Your task to perform on an android device: allow notifications from all sites in the chrome app Image 0: 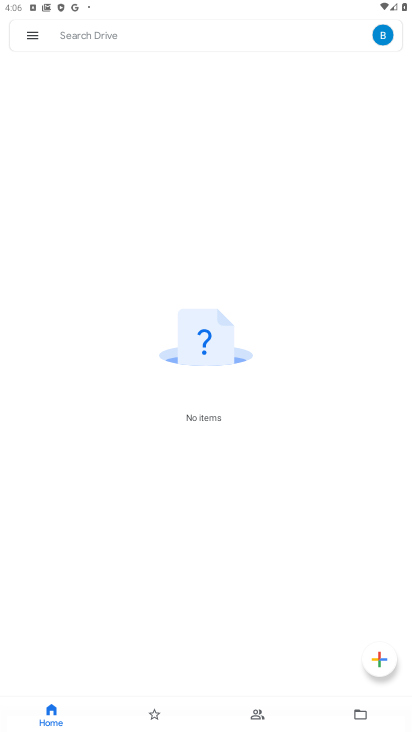
Step 0: press home button
Your task to perform on an android device: allow notifications from all sites in the chrome app Image 1: 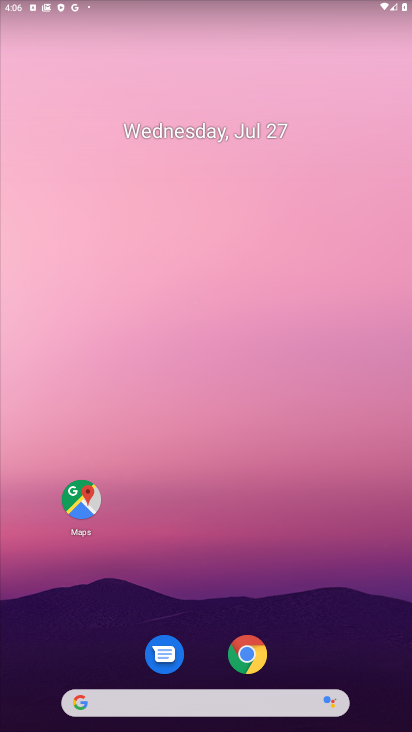
Step 1: click (244, 646)
Your task to perform on an android device: allow notifications from all sites in the chrome app Image 2: 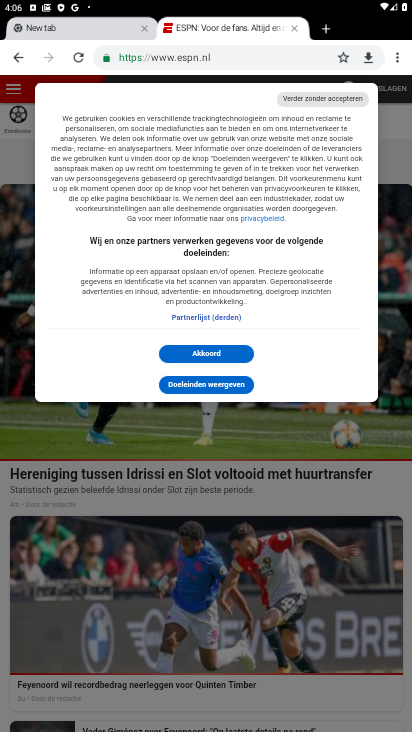
Step 2: click (398, 55)
Your task to perform on an android device: allow notifications from all sites in the chrome app Image 3: 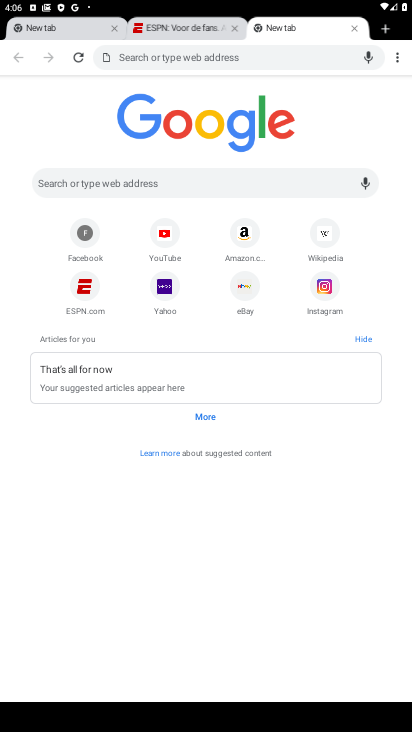
Step 3: click (395, 53)
Your task to perform on an android device: allow notifications from all sites in the chrome app Image 4: 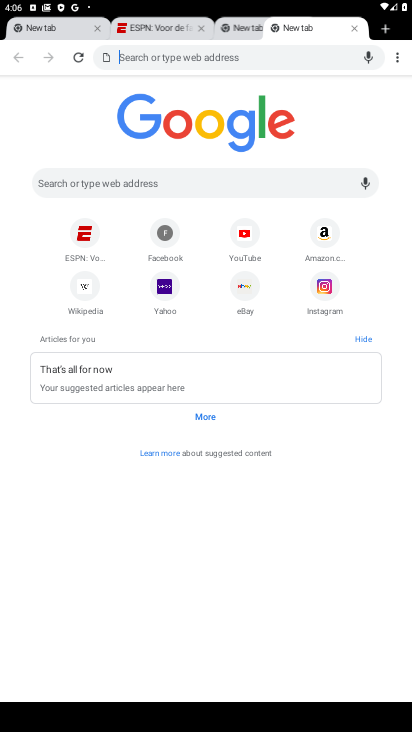
Step 4: click (390, 54)
Your task to perform on an android device: allow notifications from all sites in the chrome app Image 5: 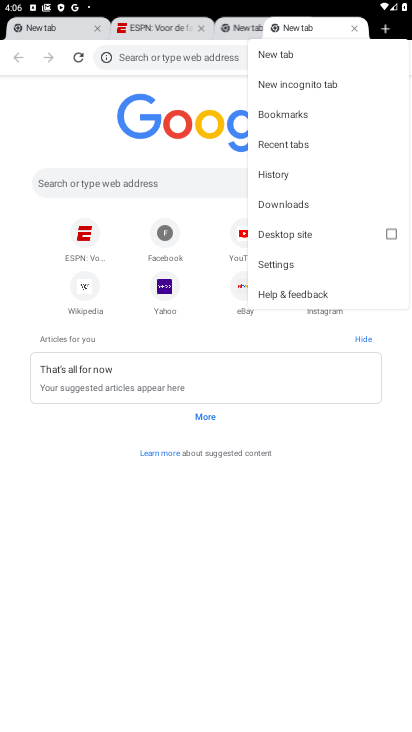
Step 5: click (287, 266)
Your task to perform on an android device: allow notifications from all sites in the chrome app Image 6: 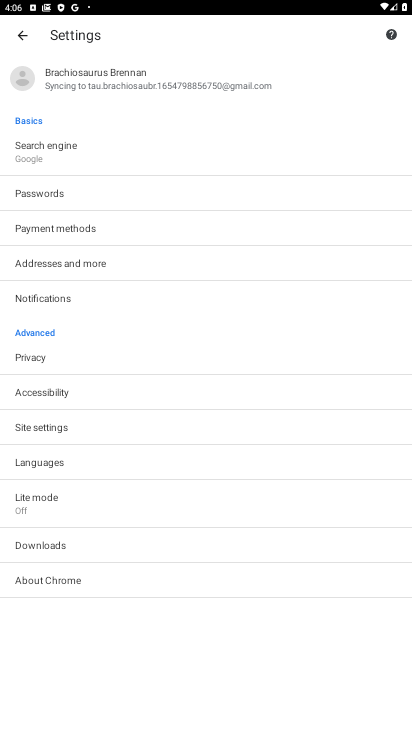
Step 6: click (40, 424)
Your task to perform on an android device: allow notifications from all sites in the chrome app Image 7: 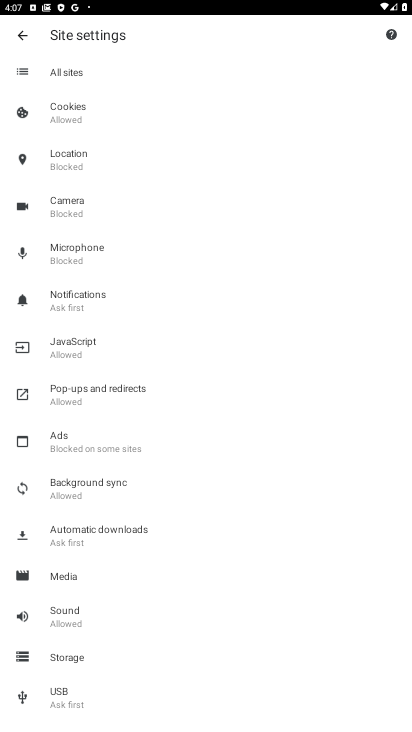
Step 7: click (74, 302)
Your task to perform on an android device: allow notifications from all sites in the chrome app Image 8: 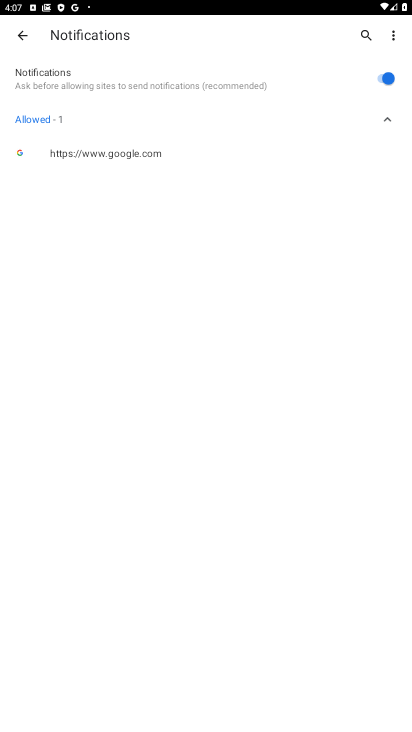
Step 8: task complete